Your task to perform on an android device: Open Maps and search for coffee Image 0: 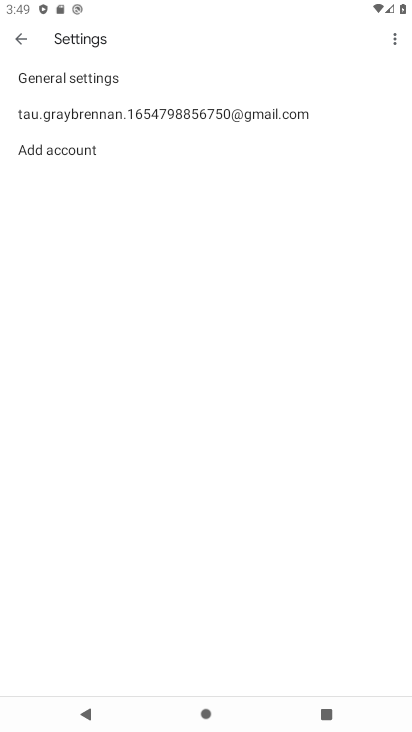
Step 0: press home button
Your task to perform on an android device: Open Maps and search for coffee Image 1: 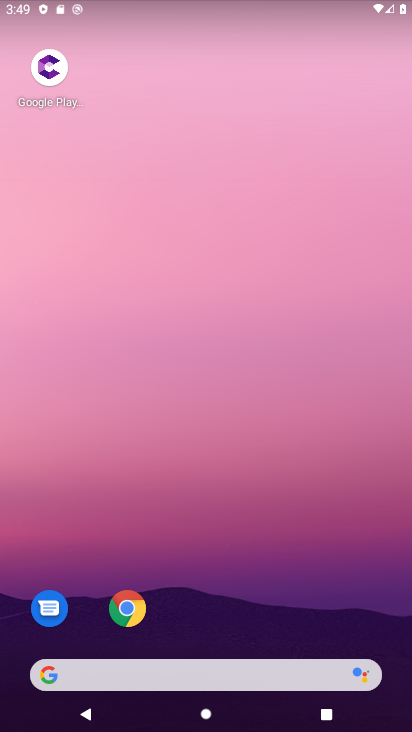
Step 1: drag from (297, 597) to (242, 28)
Your task to perform on an android device: Open Maps and search for coffee Image 2: 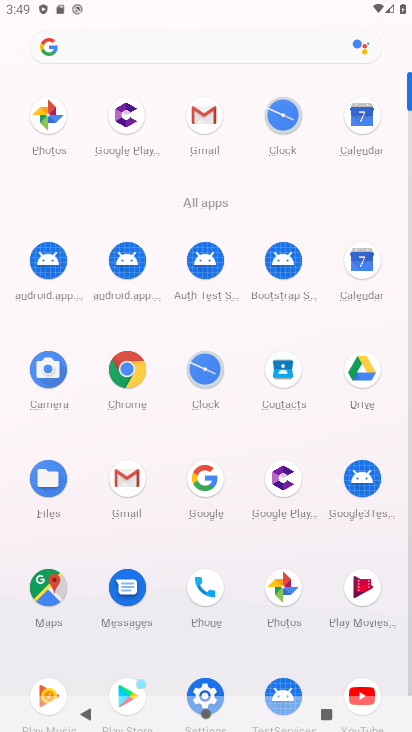
Step 2: click (54, 592)
Your task to perform on an android device: Open Maps and search for coffee Image 3: 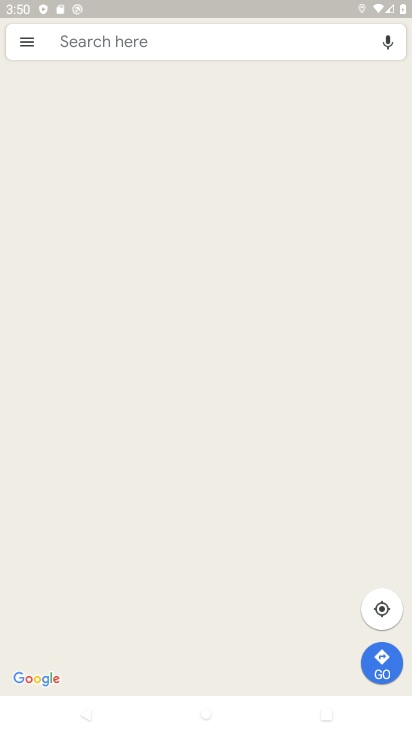
Step 3: click (162, 36)
Your task to perform on an android device: Open Maps and search for coffee Image 4: 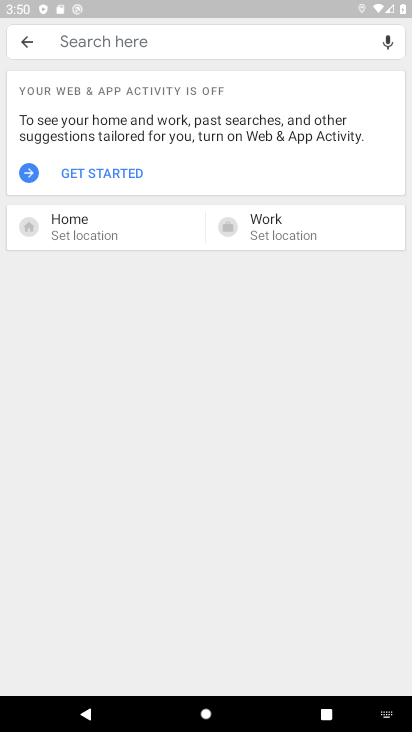
Step 4: type "coffee"
Your task to perform on an android device: Open Maps and search for coffee Image 5: 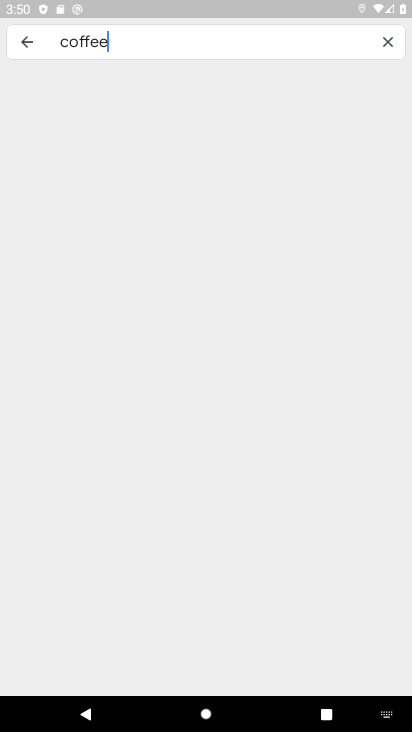
Step 5: press enter
Your task to perform on an android device: Open Maps and search for coffee Image 6: 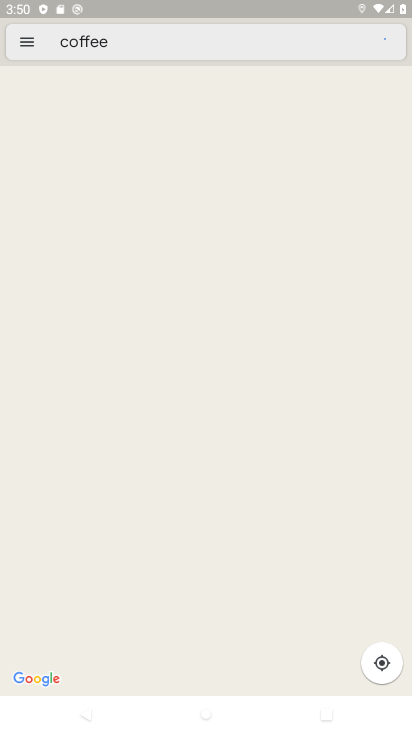
Step 6: click (164, 48)
Your task to perform on an android device: Open Maps and search for coffee Image 7: 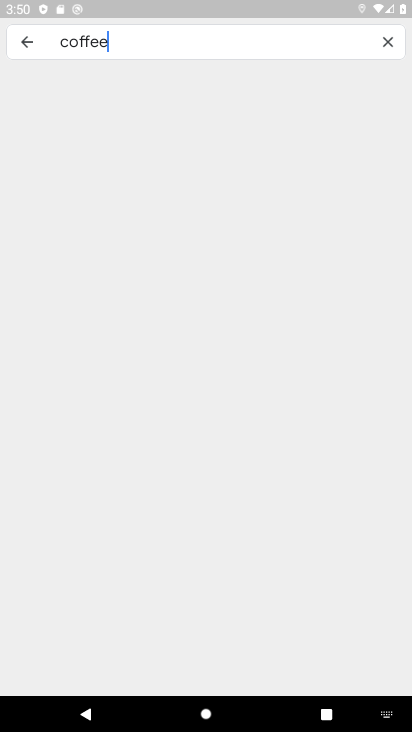
Step 7: press enter
Your task to perform on an android device: Open Maps and search for coffee Image 8: 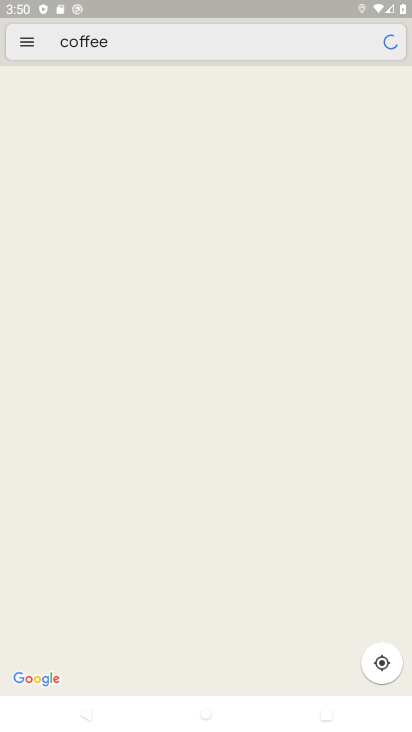
Step 8: task complete